Your task to perform on an android device: add a label to a message in the gmail app Image 0: 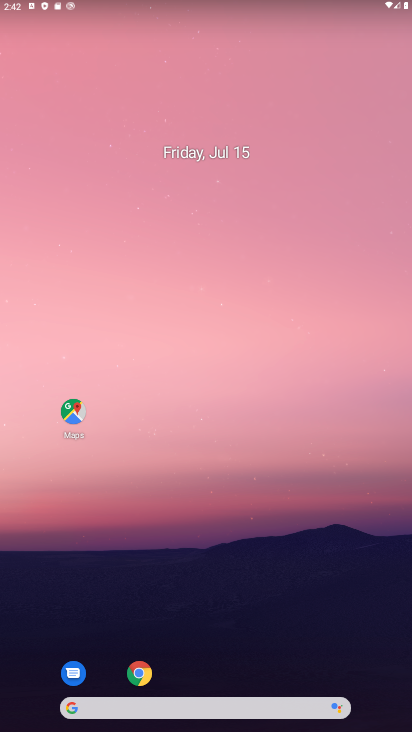
Step 0: drag from (374, 661) to (351, 97)
Your task to perform on an android device: add a label to a message in the gmail app Image 1: 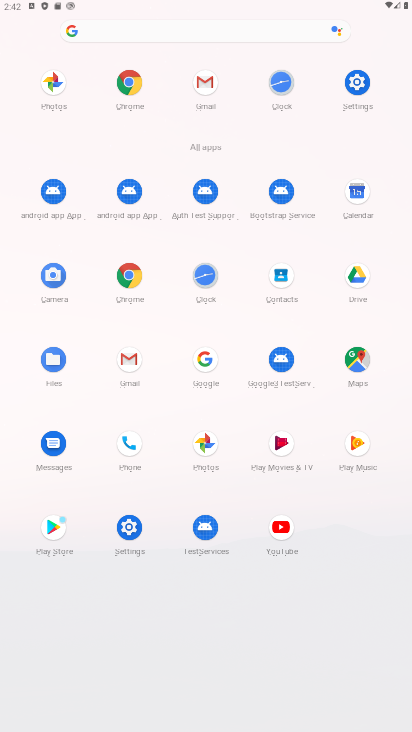
Step 1: click (126, 361)
Your task to perform on an android device: add a label to a message in the gmail app Image 2: 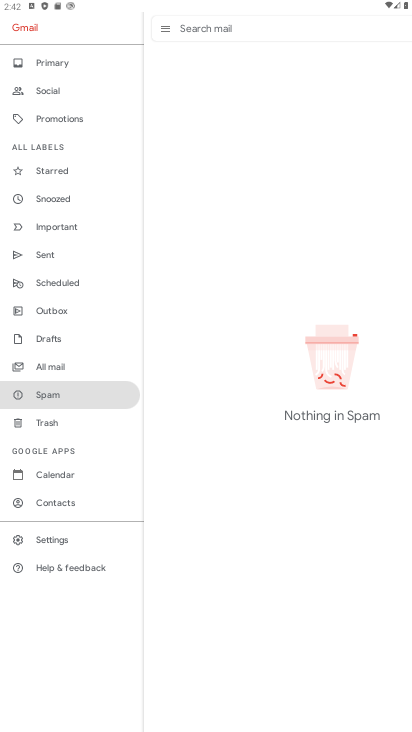
Step 2: click (54, 362)
Your task to perform on an android device: add a label to a message in the gmail app Image 3: 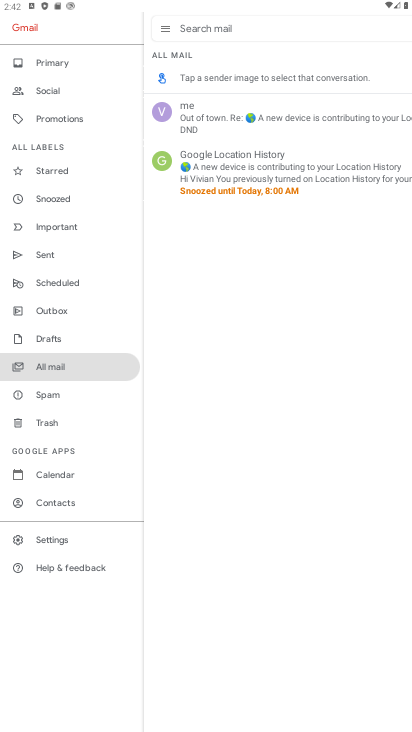
Step 3: click (244, 120)
Your task to perform on an android device: add a label to a message in the gmail app Image 4: 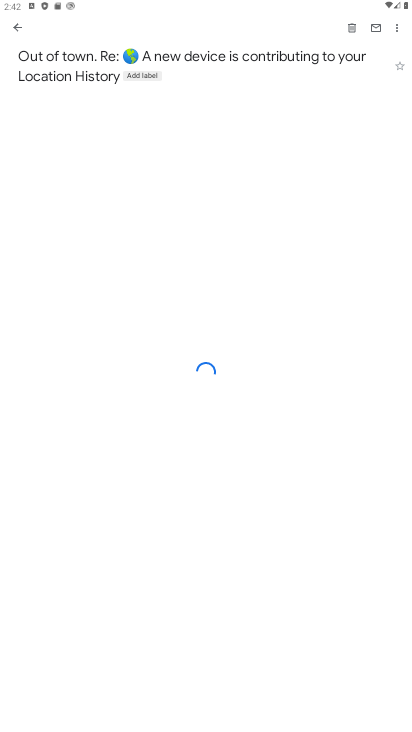
Step 4: click (396, 27)
Your task to perform on an android device: add a label to a message in the gmail app Image 5: 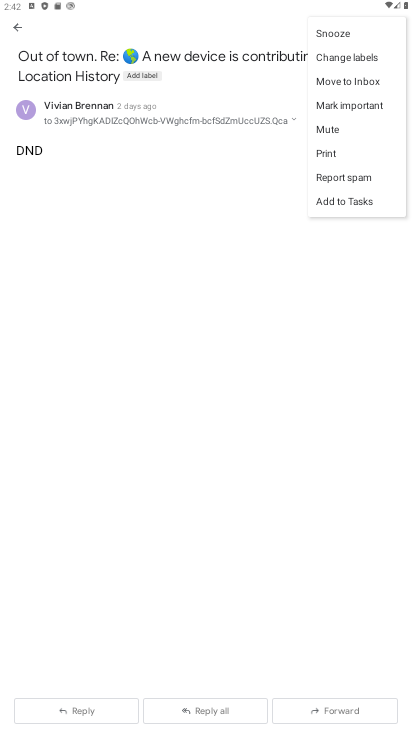
Step 5: click (338, 103)
Your task to perform on an android device: add a label to a message in the gmail app Image 6: 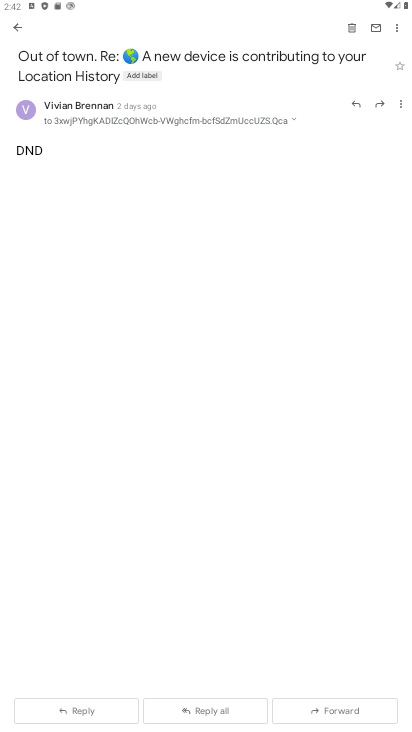
Step 6: task complete